Your task to perform on an android device: Go to Yahoo.com Image 0: 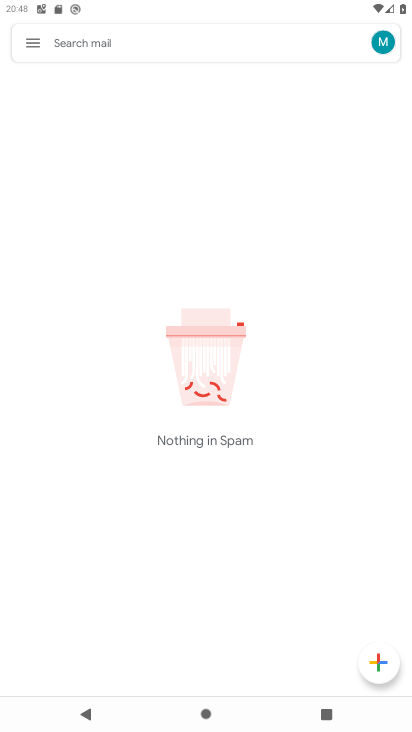
Step 0: press home button
Your task to perform on an android device: Go to Yahoo.com Image 1: 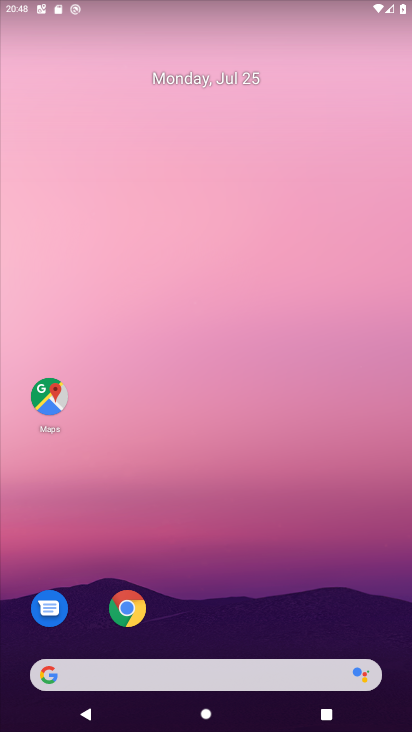
Step 1: click (123, 620)
Your task to perform on an android device: Go to Yahoo.com Image 2: 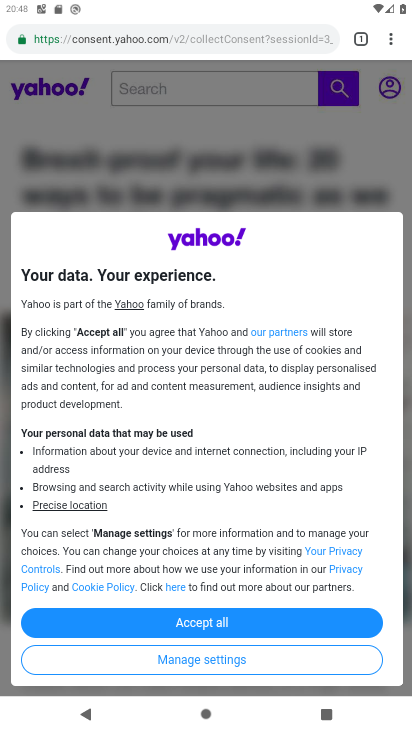
Step 2: task complete